Your task to perform on an android device: turn off wifi Image 0: 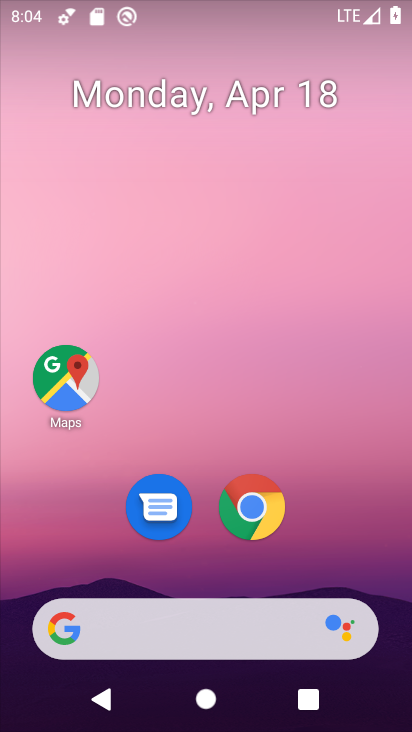
Step 0: drag from (212, 5) to (281, 391)
Your task to perform on an android device: turn off wifi Image 1: 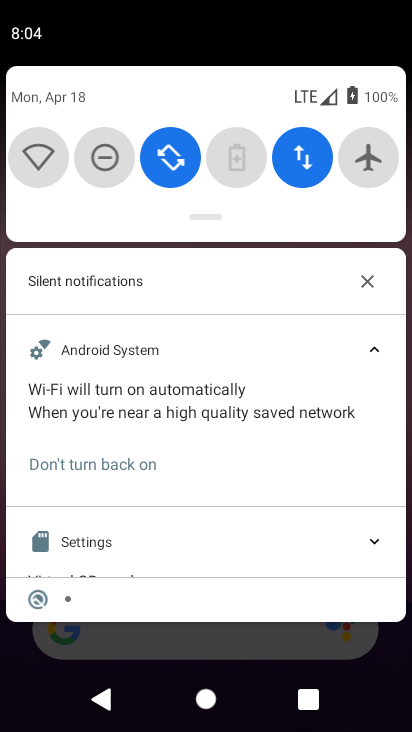
Step 1: task complete